Your task to perform on an android device: search for starred emails in the gmail app Image 0: 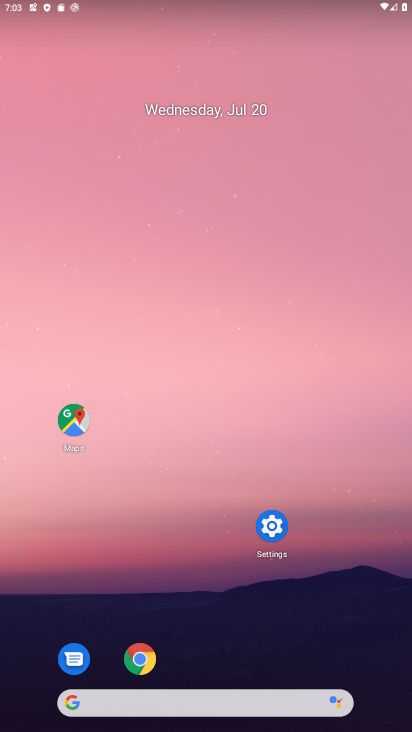
Step 0: drag from (300, 709) to (314, 163)
Your task to perform on an android device: search for starred emails in the gmail app Image 1: 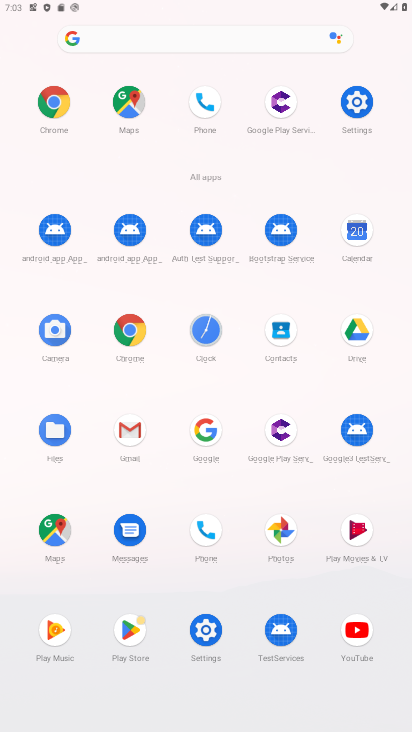
Step 1: click (148, 425)
Your task to perform on an android device: search for starred emails in the gmail app Image 2: 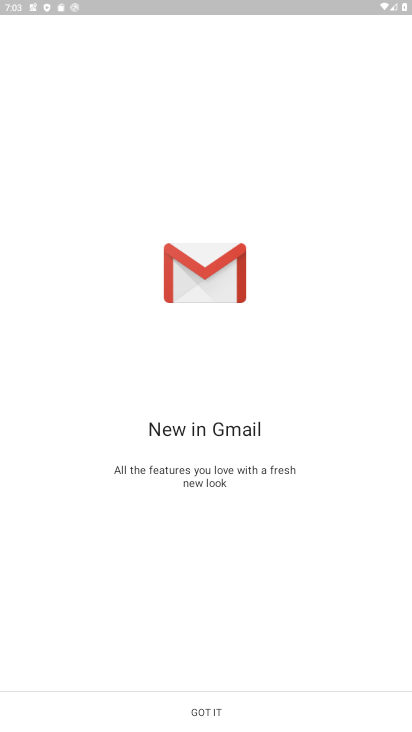
Step 2: click (235, 712)
Your task to perform on an android device: search for starred emails in the gmail app Image 3: 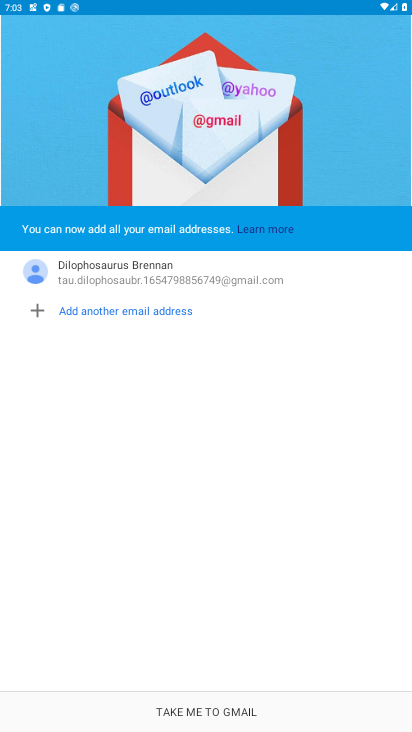
Step 3: click (227, 712)
Your task to perform on an android device: search for starred emails in the gmail app Image 4: 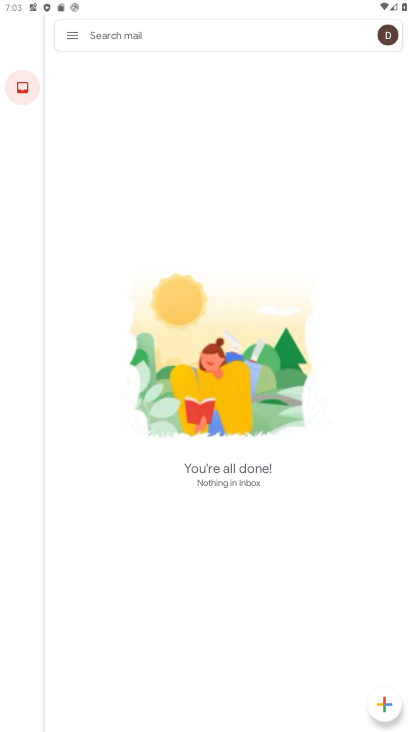
Step 4: click (60, 42)
Your task to perform on an android device: search for starred emails in the gmail app Image 5: 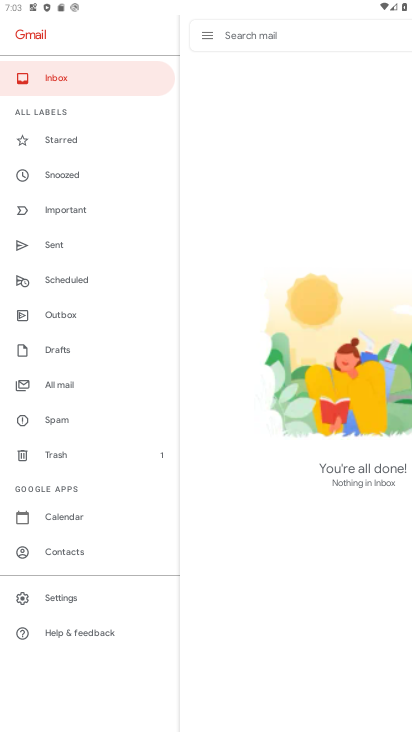
Step 5: click (63, 147)
Your task to perform on an android device: search for starred emails in the gmail app Image 6: 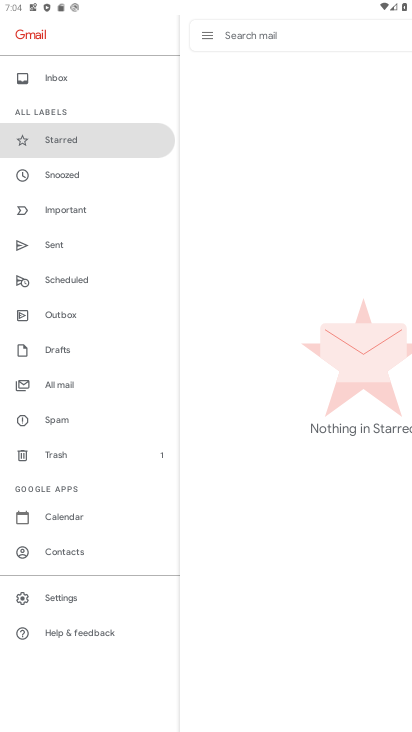
Step 6: task complete